Your task to perform on an android device: Turn off the flashlight Image 0: 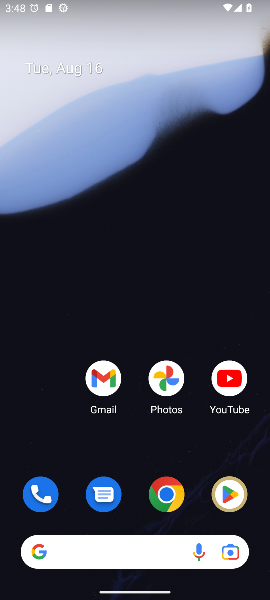
Step 0: drag from (123, 525) to (118, 83)
Your task to perform on an android device: Turn off the flashlight Image 1: 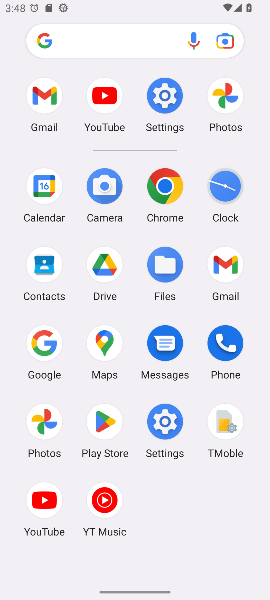
Step 1: task complete